Your task to perform on an android device: Show me popular videos on Youtube Image 0: 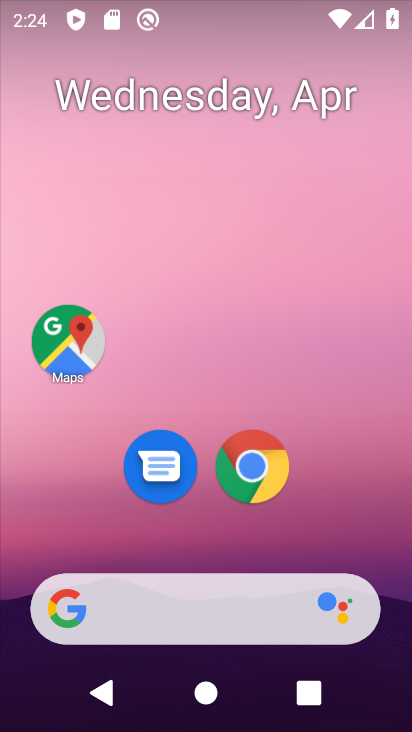
Step 0: click (280, 221)
Your task to perform on an android device: Show me popular videos on Youtube Image 1: 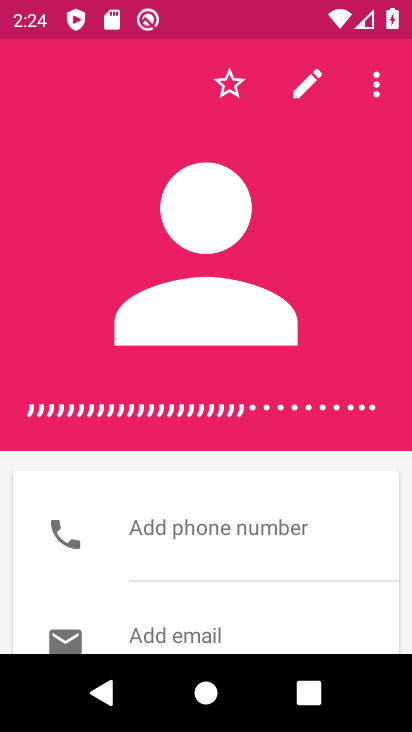
Step 1: press home button
Your task to perform on an android device: Show me popular videos on Youtube Image 2: 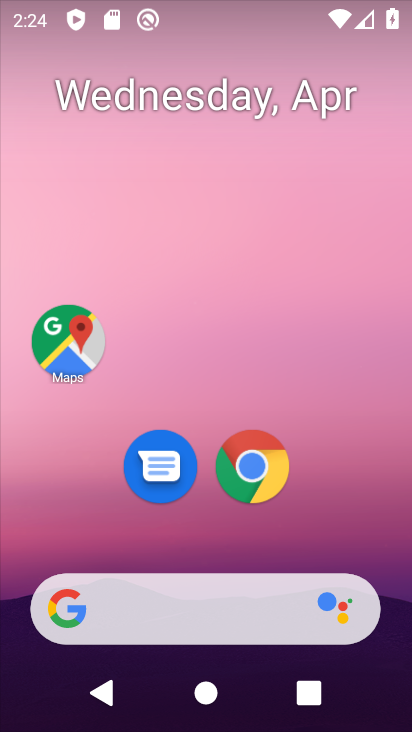
Step 2: drag from (320, 624) to (346, 237)
Your task to perform on an android device: Show me popular videos on Youtube Image 3: 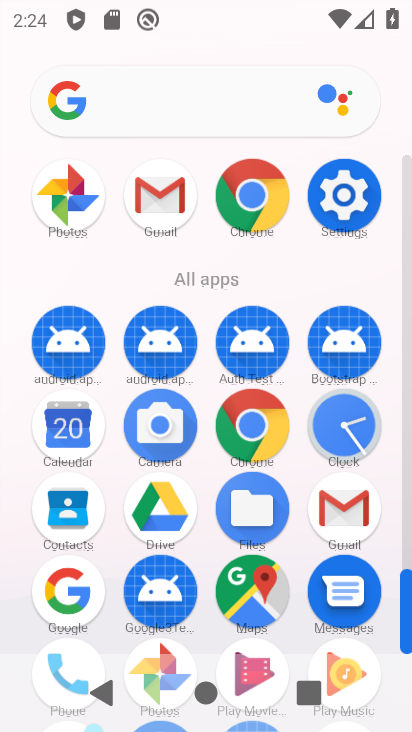
Step 3: drag from (265, 616) to (318, 210)
Your task to perform on an android device: Show me popular videos on Youtube Image 4: 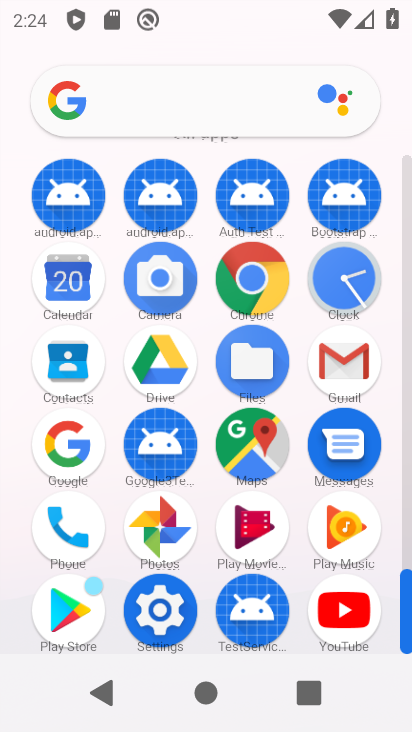
Step 4: click (336, 593)
Your task to perform on an android device: Show me popular videos on Youtube Image 5: 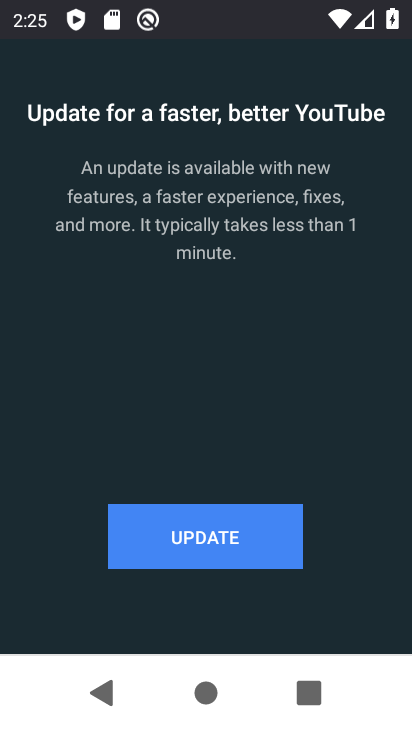
Step 5: task complete